Your task to perform on an android device: Add "razer deathadder" to the cart on ebay.com, then select checkout. Image 0: 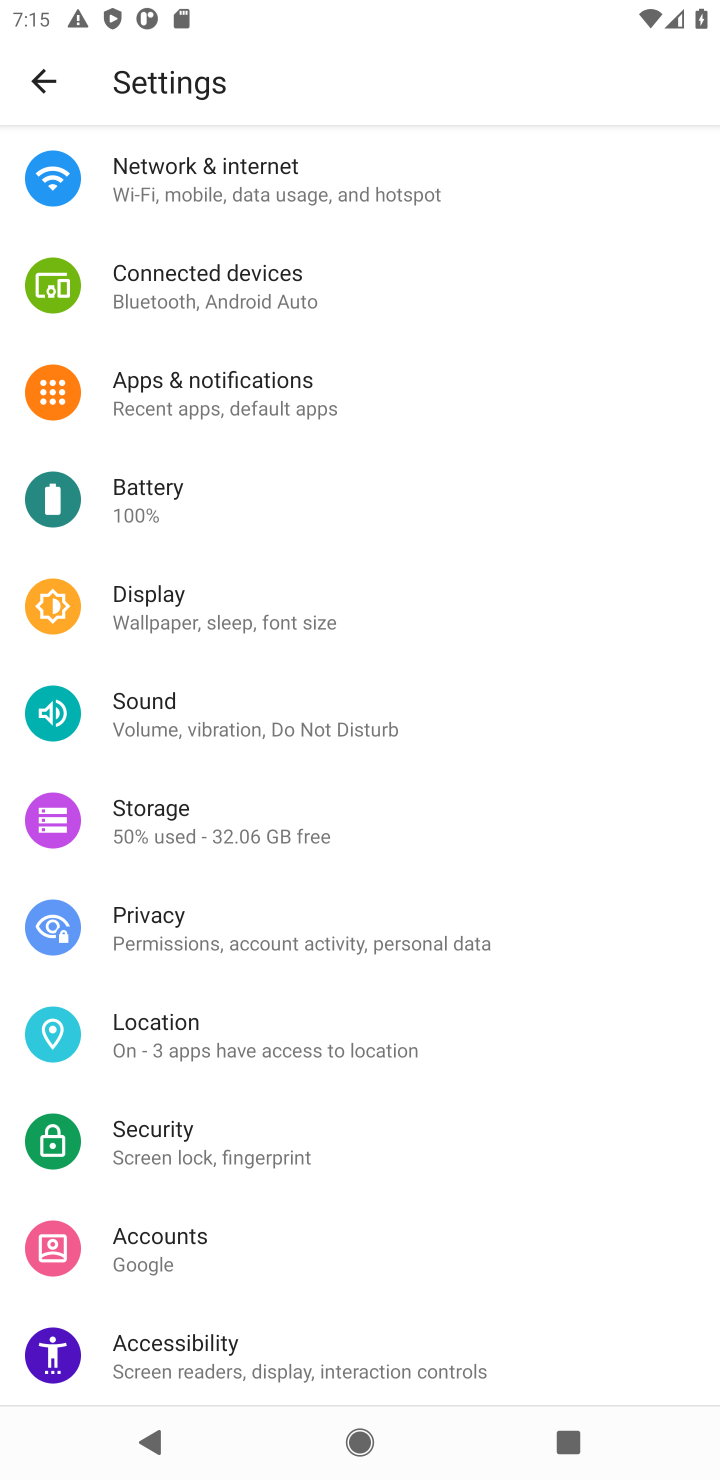
Step 0: press home button
Your task to perform on an android device: Add "razer deathadder" to the cart on ebay.com, then select checkout. Image 1: 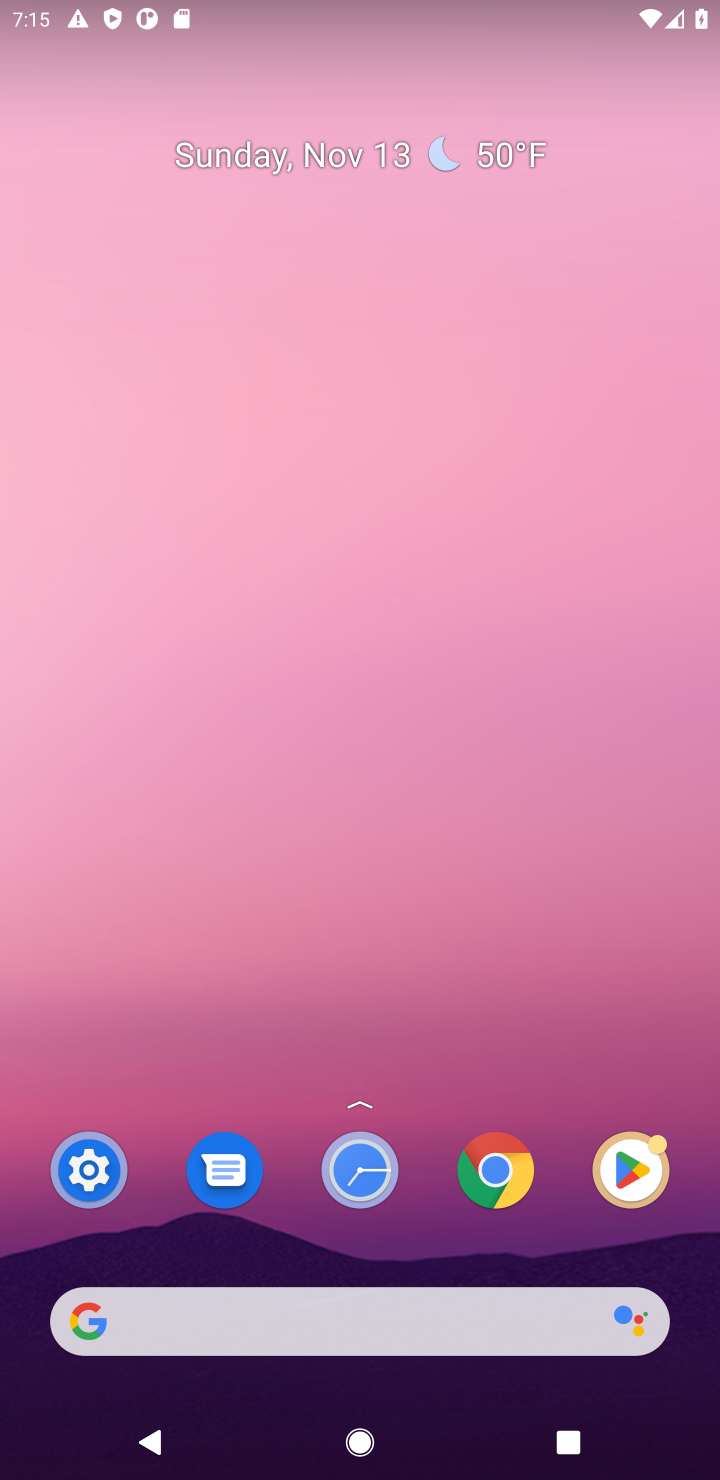
Step 1: click (429, 1334)
Your task to perform on an android device: Add "razer deathadder" to the cart on ebay.com, then select checkout. Image 2: 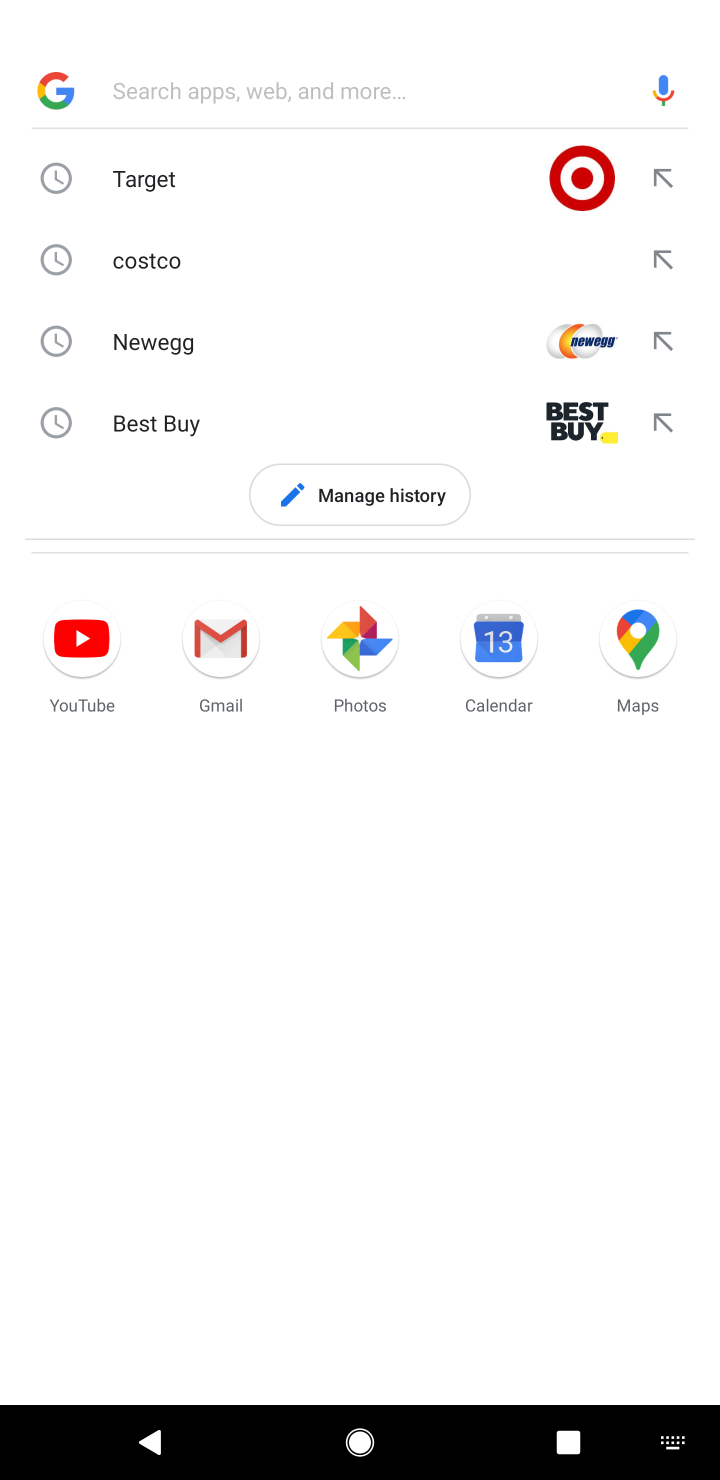
Step 2: type "ebay.com"
Your task to perform on an android device: Add "razer deathadder" to the cart on ebay.com, then select checkout. Image 3: 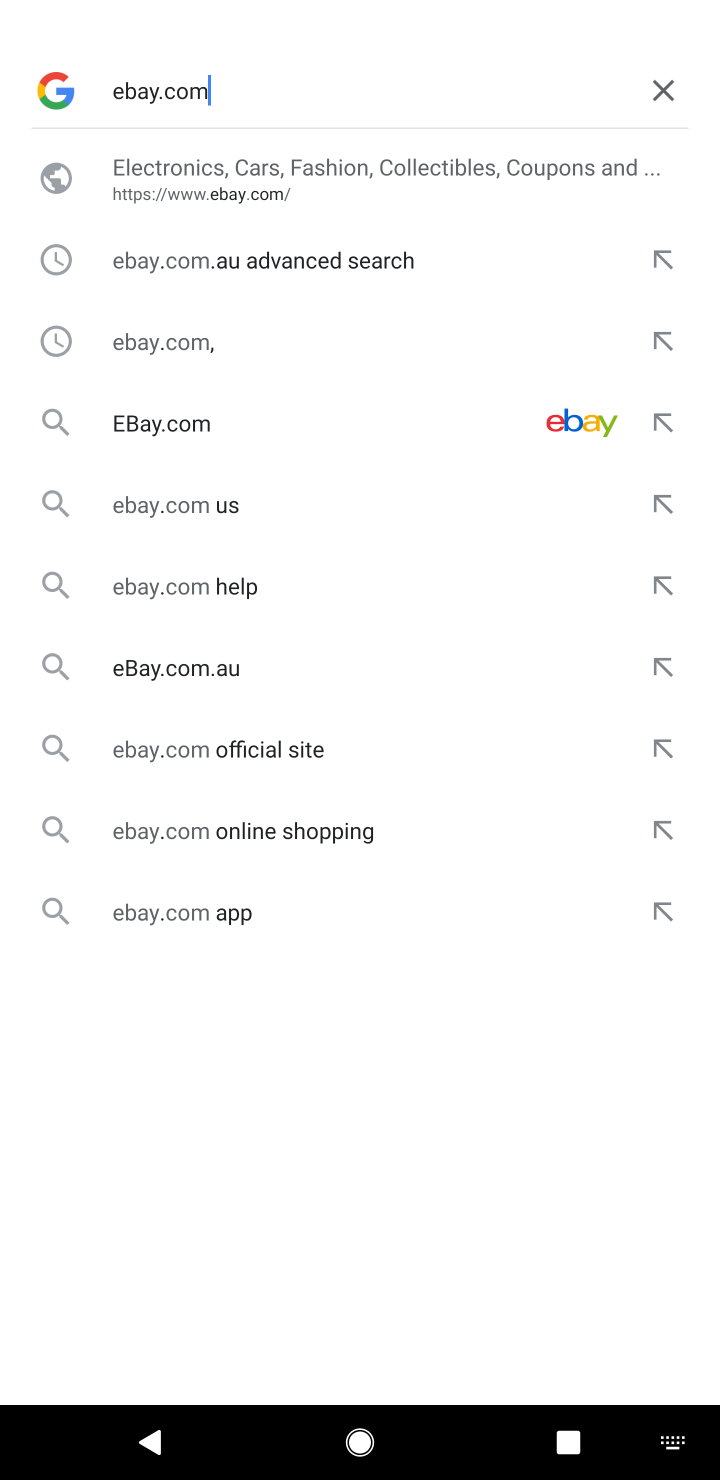
Step 3: click (237, 189)
Your task to perform on an android device: Add "razer deathadder" to the cart on ebay.com, then select checkout. Image 4: 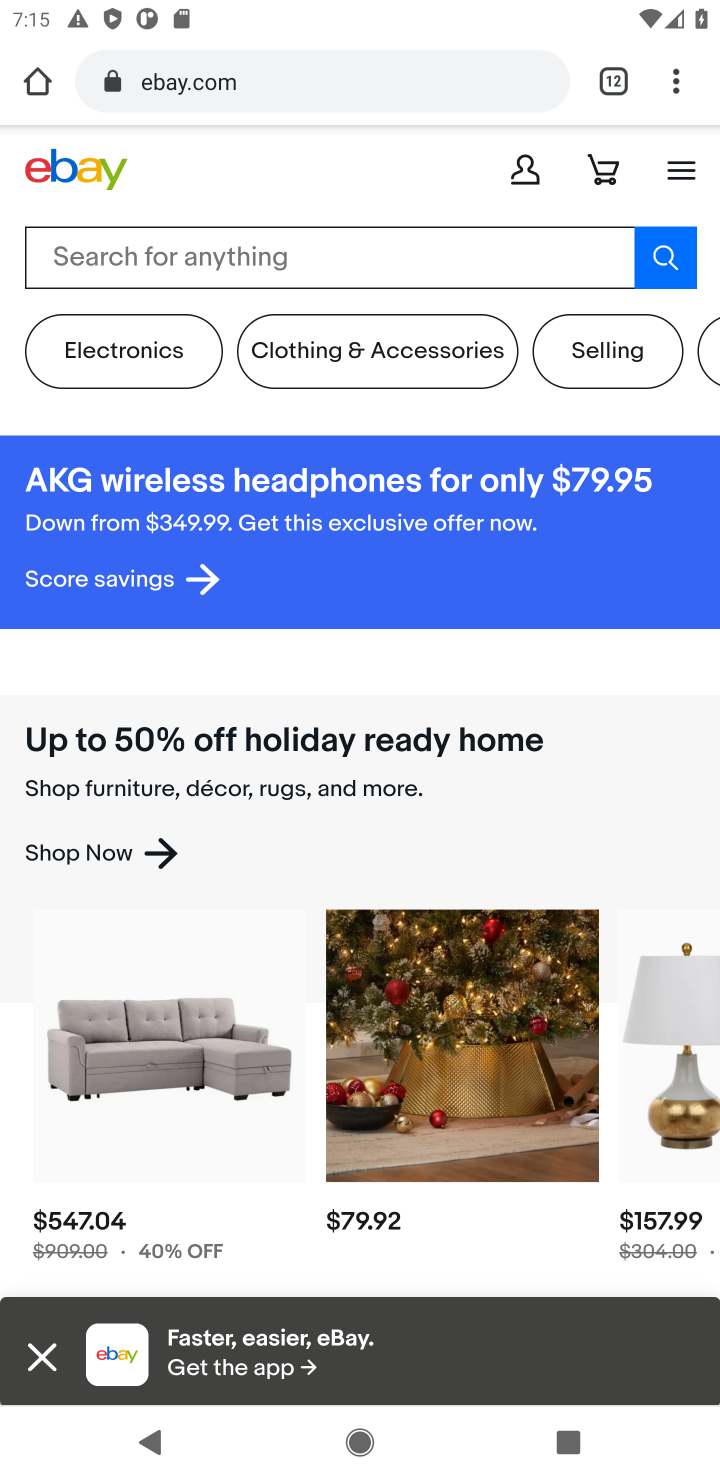
Step 4: click (194, 264)
Your task to perform on an android device: Add "razer deathadder" to the cart on ebay.com, then select checkout. Image 5: 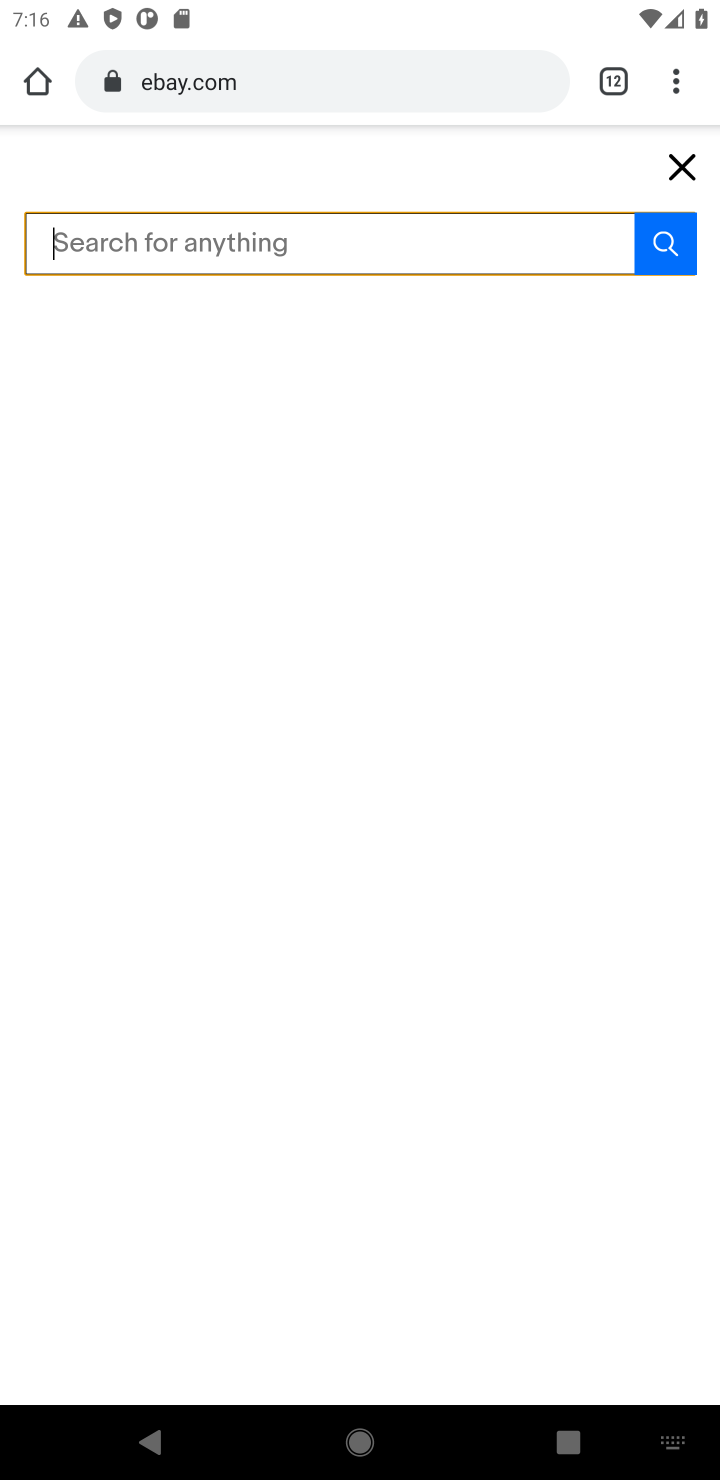
Step 5: type "razer daethadder"
Your task to perform on an android device: Add "razer deathadder" to the cart on ebay.com, then select checkout. Image 6: 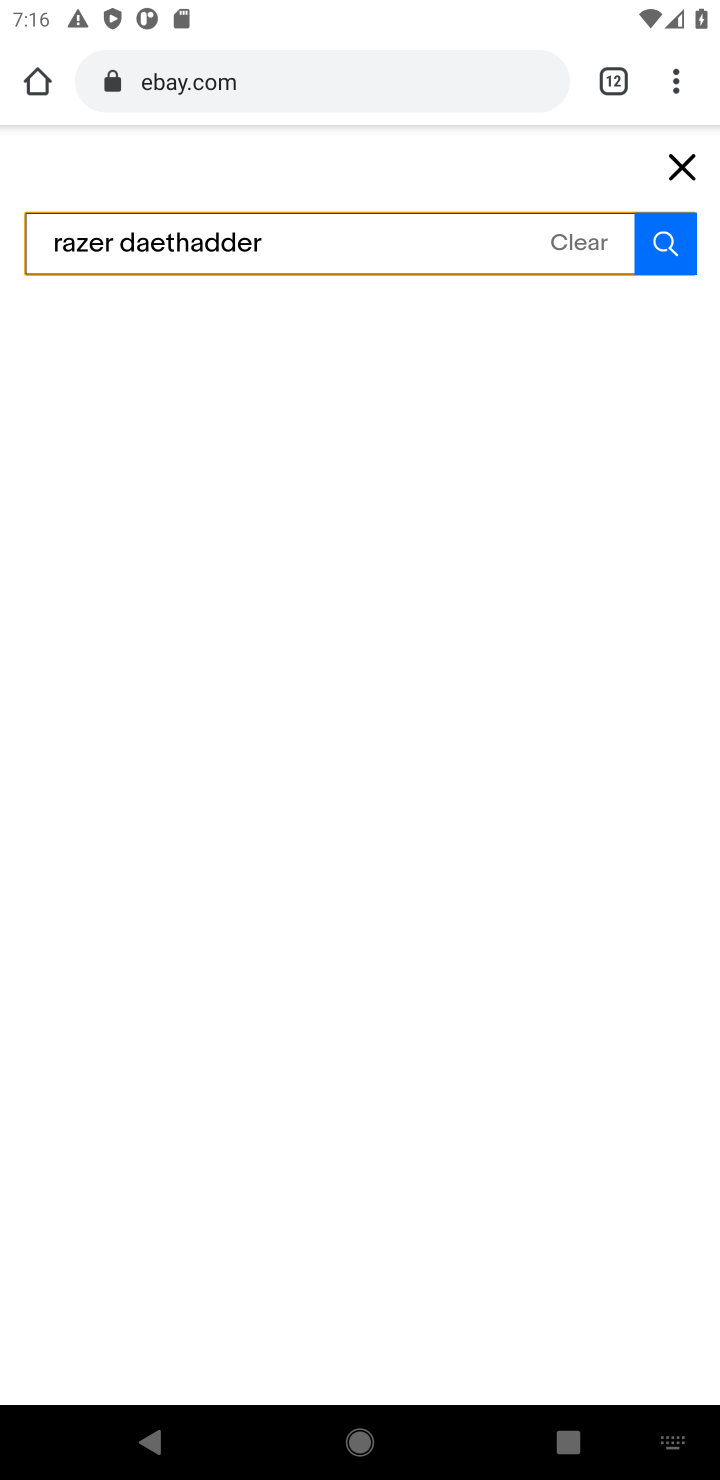
Step 6: task complete